Your task to perform on an android device: check storage Image 0: 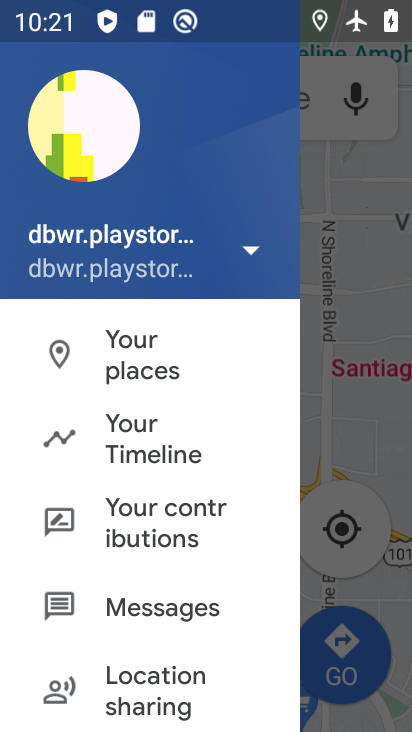
Step 0: press home button
Your task to perform on an android device: check storage Image 1: 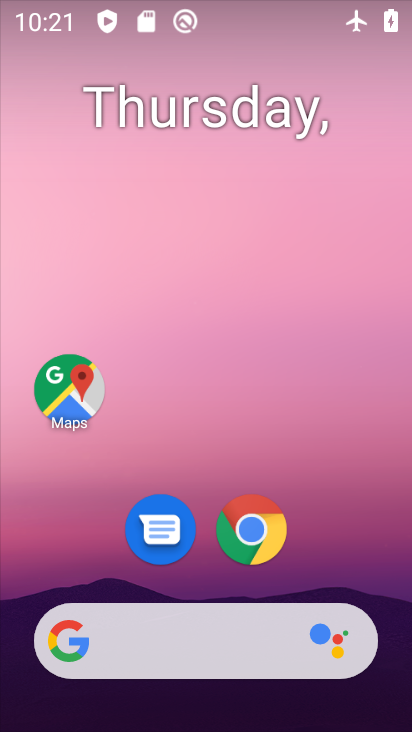
Step 1: drag from (298, 557) to (288, 92)
Your task to perform on an android device: check storage Image 2: 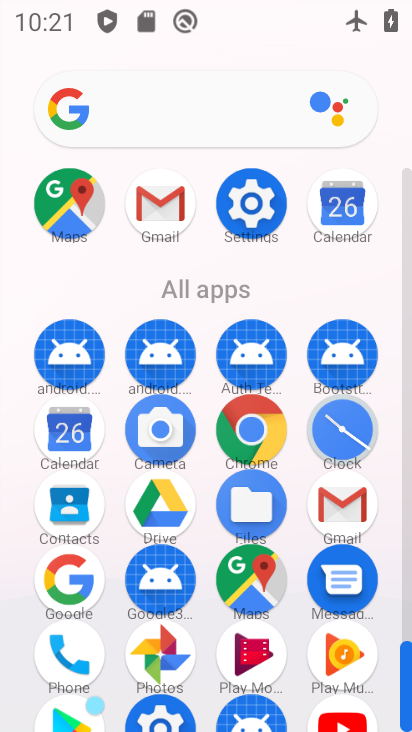
Step 2: click (245, 201)
Your task to perform on an android device: check storage Image 3: 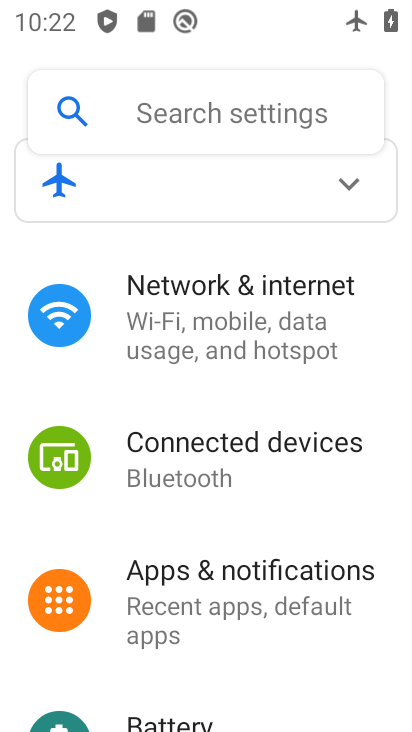
Step 3: drag from (255, 582) to (267, 150)
Your task to perform on an android device: check storage Image 4: 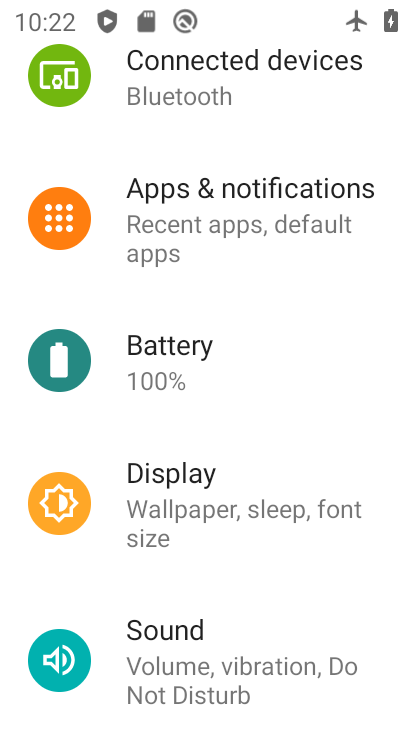
Step 4: drag from (191, 654) to (230, 360)
Your task to perform on an android device: check storage Image 5: 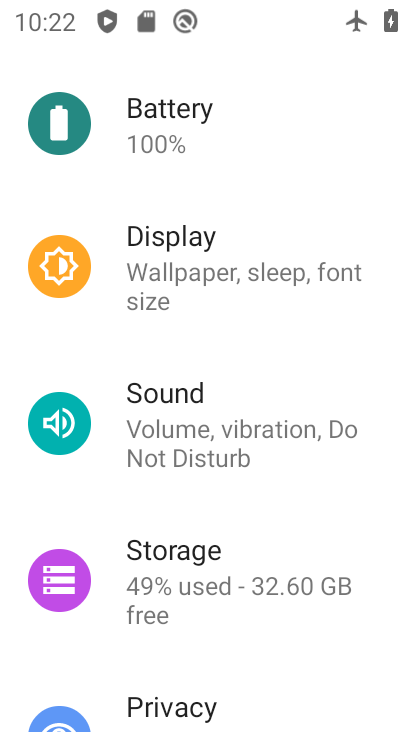
Step 5: click (197, 570)
Your task to perform on an android device: check storage Image 6: 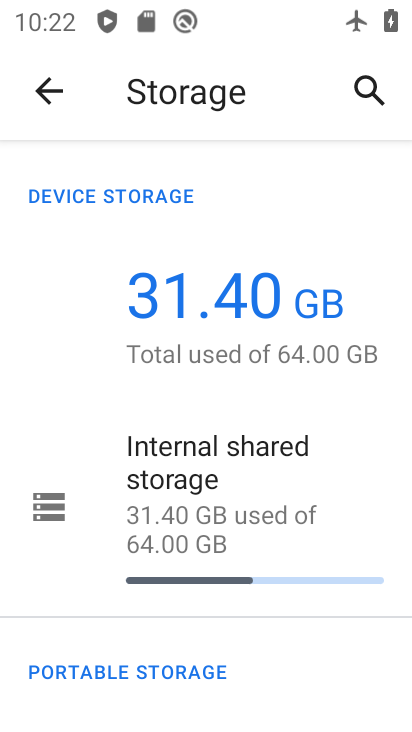
Step 6: task complete